Your task to perform on an android device: Open Chrome and go to the settings page Image 0: 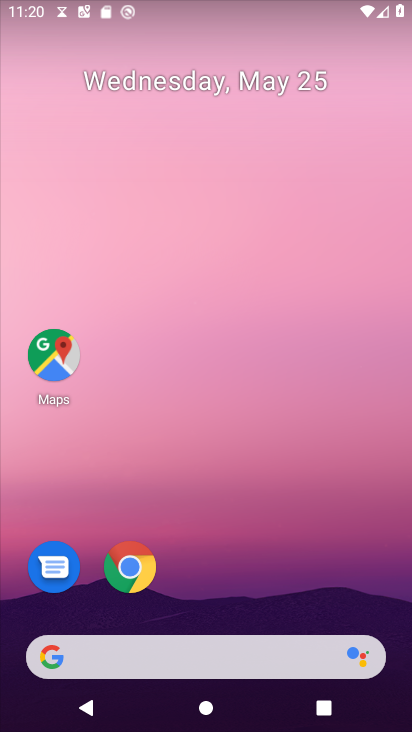
Step 0: click (128, 572)
Your task to perform on an android device: Open Chrome and go to the settings page Image 1: 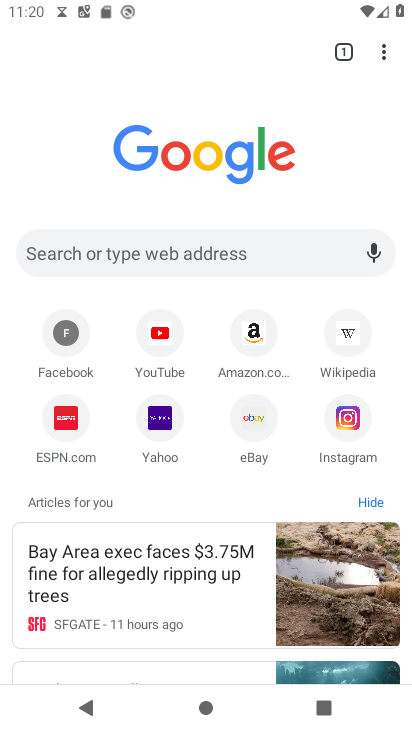
Step 1: click (392, 44)
Your task to perform on an android device: Open Chrome and go to the settings page Image 2: 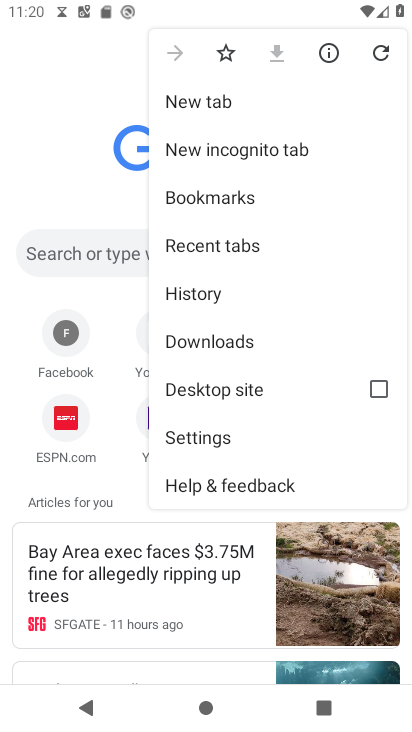
Step 2: click (218, 440)
Your task to perform on an android device: Open Chrome and go to the settings page Image 3: 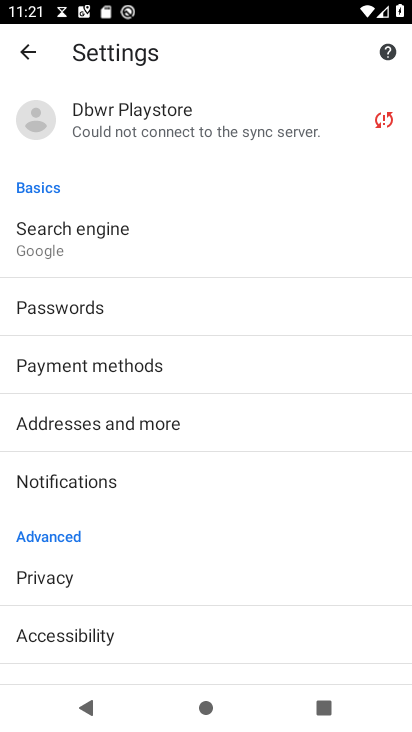
Step 3: task complete